Your task to perform on an android device: Show me the alarms in the clock app Image 0: 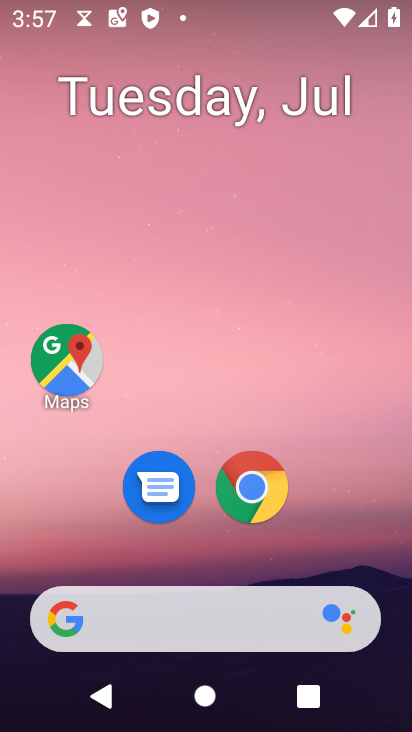
Step 0: drag from (189, 467) to (279, 17)
Your task to perform on an android device: Show me the alarms in the clock app Image 1: 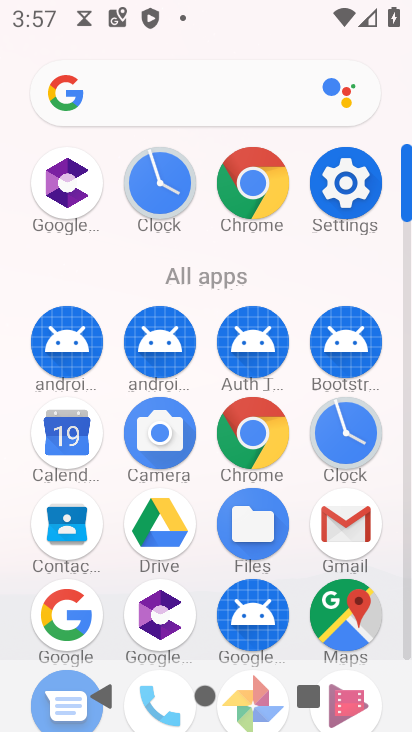
Step 1: click (332, 432)
Your task to perform on an android device: Show me the alarms in the clock app Image 2: 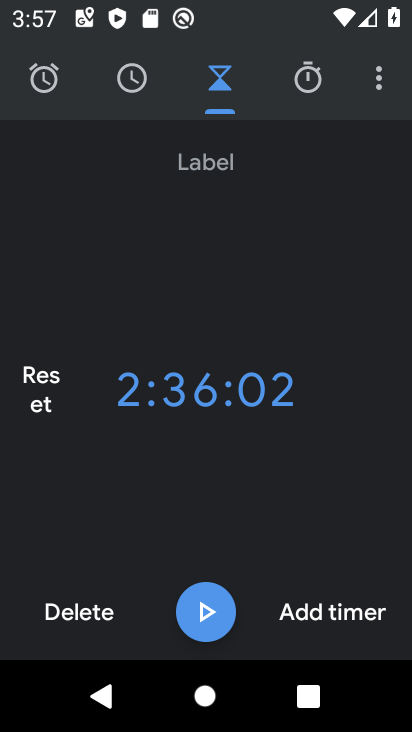
Step 2: click (50, 74)
Your task to perform on an android device: Show me the alarms in the clock app Image 3: 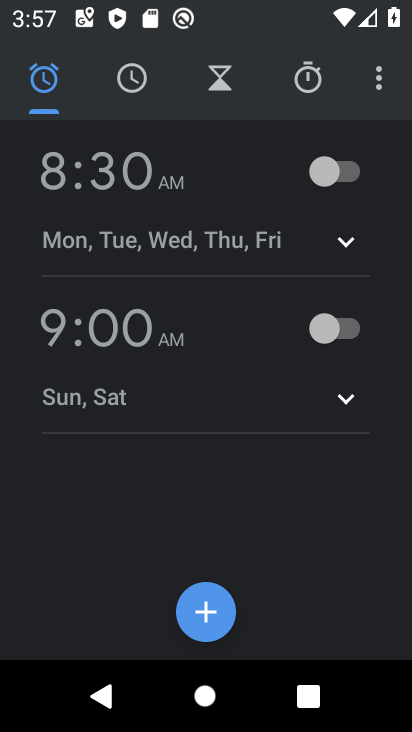
Step 3: task complete